Your task to perform on an android device: turn on javascript in the chrome app Image 0: 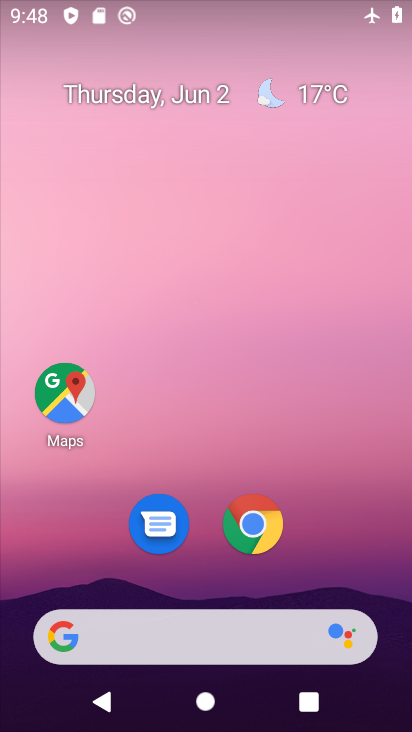
Step 0: click (266, 525)
Your task to perform on an android device: turn on javascript in the chrome app Image 1: 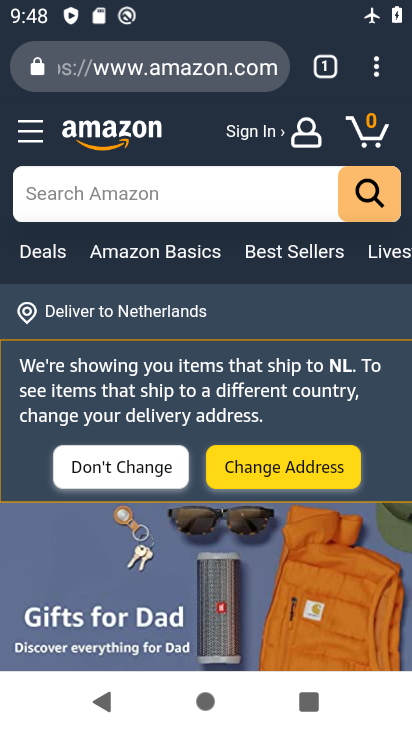
Step 1: click (371, 62)
Your task to perform on an android device: turn on javascript in the chrome app Image 2: 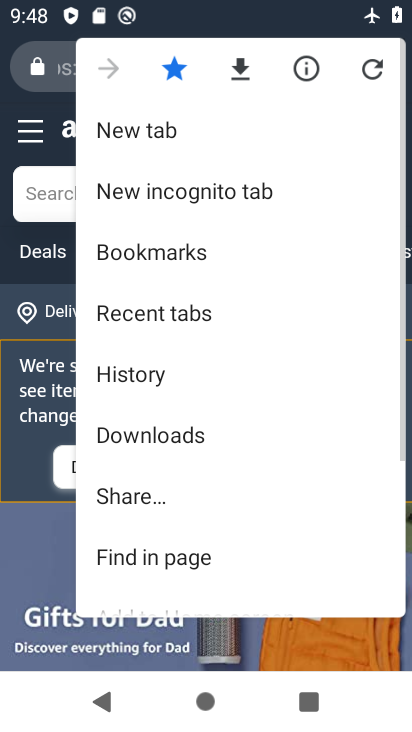
Step 2: drag from (291, 482) to (285, 202)
Your task to perform on an android device: turn on javascript in the chrome app Image 3: 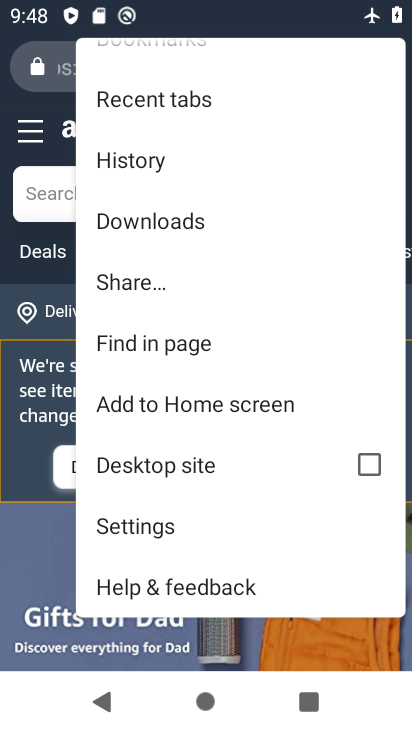
Step 3: click (182, 523)
Your task to perform on an android device: turn on javascript in the chrome app Image 4: 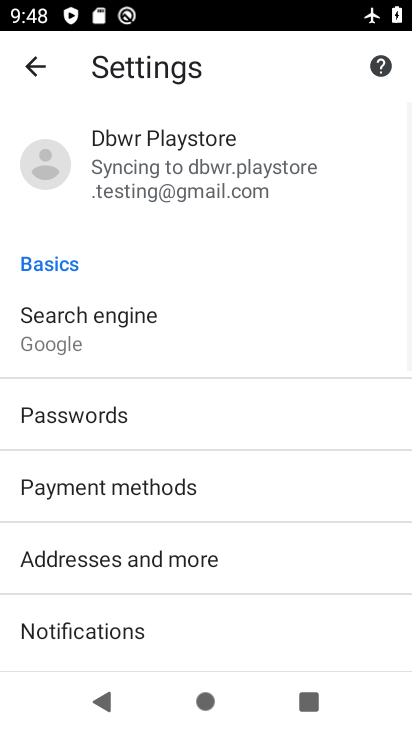
Step 4: drag from (217, 542) to (239, 277)
Your task to perform on an android device: turn on javascript in the chrome app Image 5: 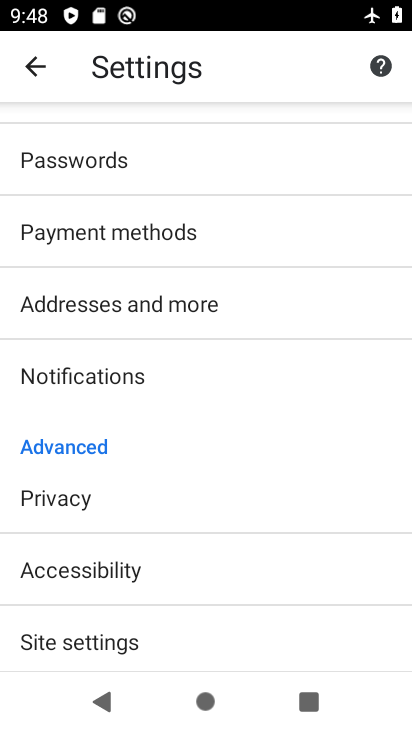
Step 5: click (217, 640)
Your task to perform on an android device: turn on javascript in the chrome app Image 6: 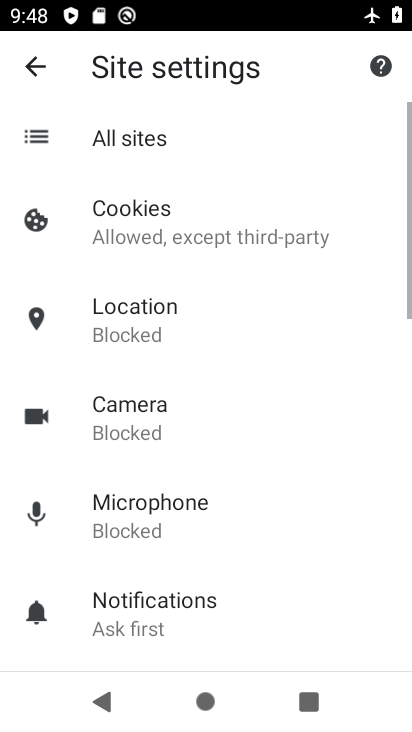
Step 6: drag from (300, 543) to (275, 250)
Your task to perform on an android device: turn on javascript in the chrome app Image 7: 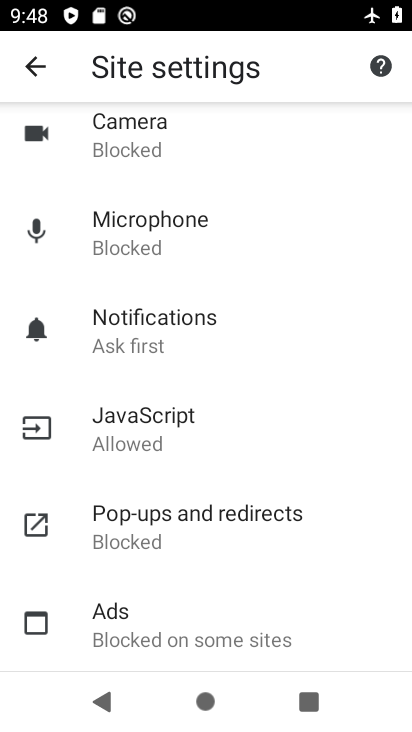
Step 7: click (246, 419)
Your task to perform on an android device: turn on javascript in the chrome app Image 8: 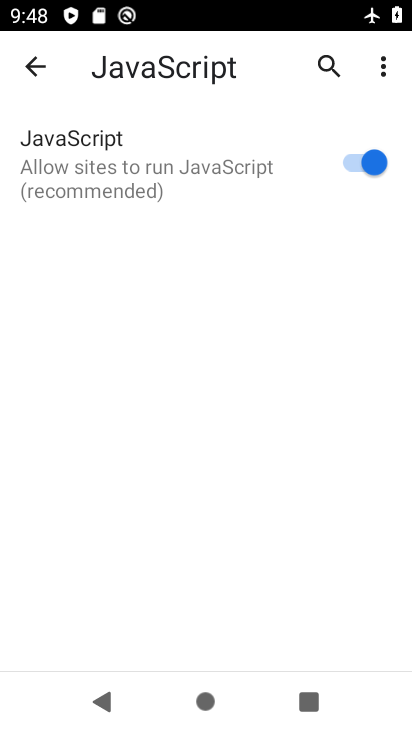
Step 8: task complete